Your task to perform on an android device: Turn off the flashlight Image 0: 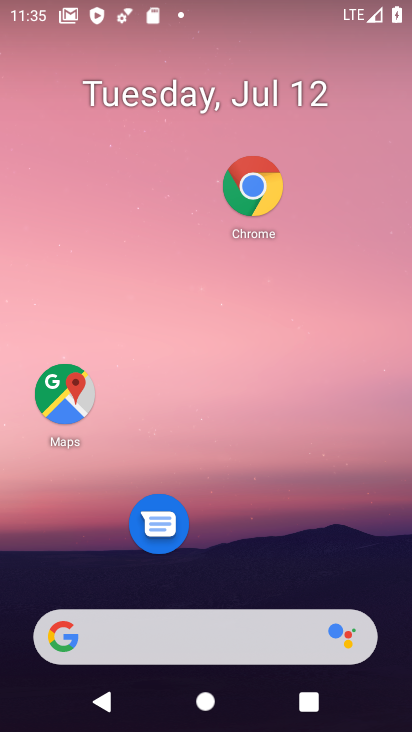
Step 0: drag from (220, 584) to (126, 91)
Your task to perform on an android device: Turn off the flashlight Image 1: 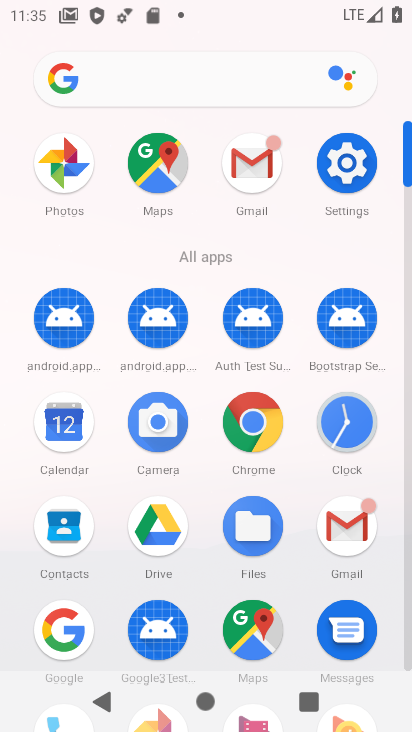
Step 1: click (350, 183)
Your task to perform on an android device: Turn off the flashlight Image 2: 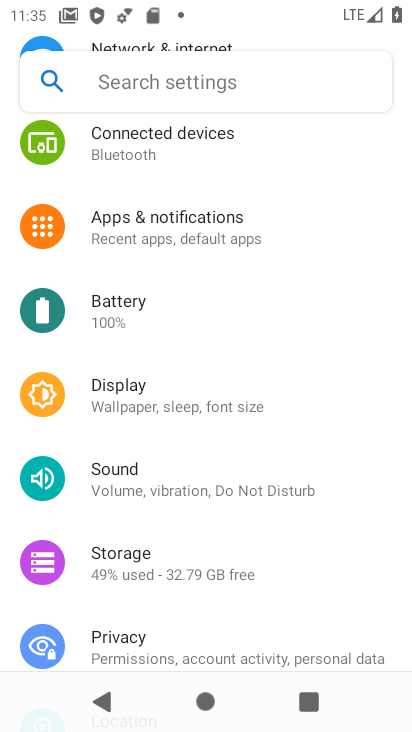
Step 2: task complete